Your task to perform on an android device: refresh tabs in the chrome app Image 0: 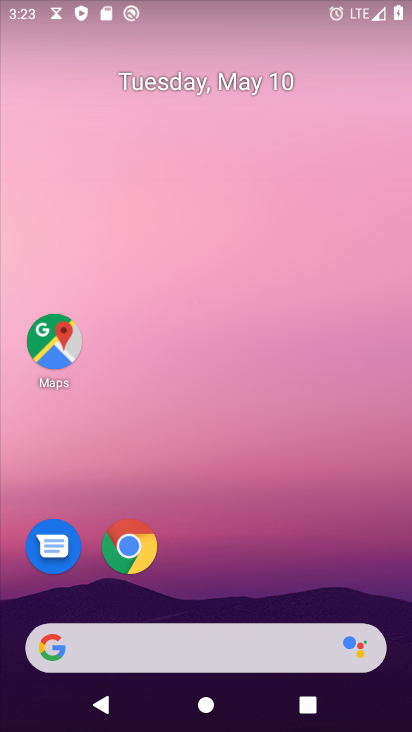
Step 0: click (142, 552)
Your task to perform on an android device: refresh tabs in the chrome app Image 1: 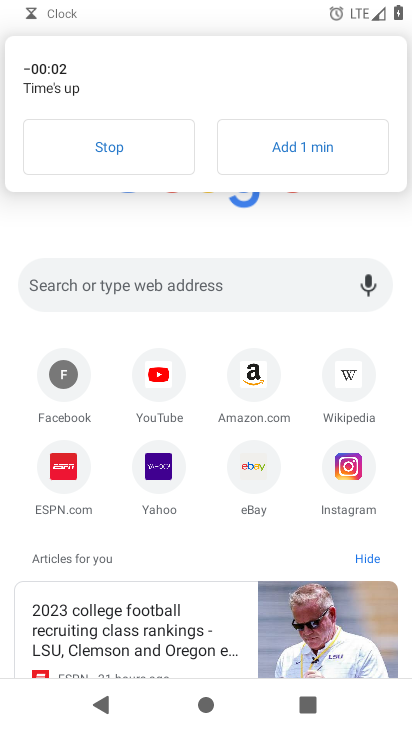
Step 1: click (153, 160)
Your task to perform on an android device: refresh tabs in the chrome app Image 2: 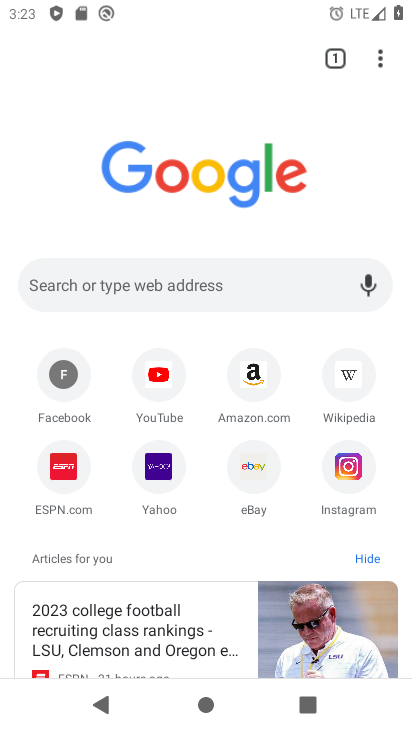
Step 2: click (395, 68)
Your task to perform on an android device: refresh tabs in the chrome app Image 3: 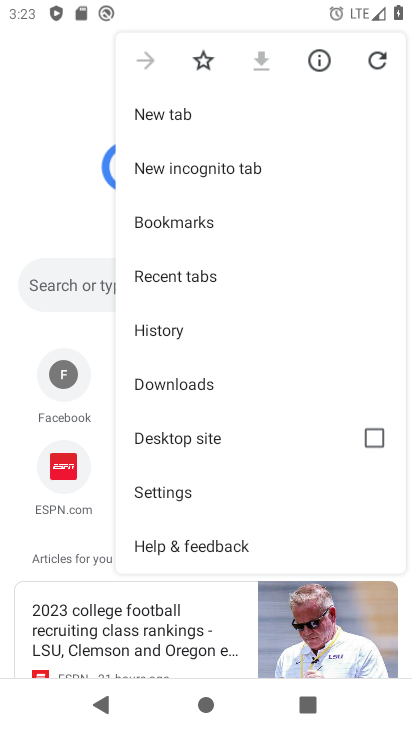
Step 3: click (384, 60)
Your task to perform on an android device: refresh tabs in the chrome app Image 4: 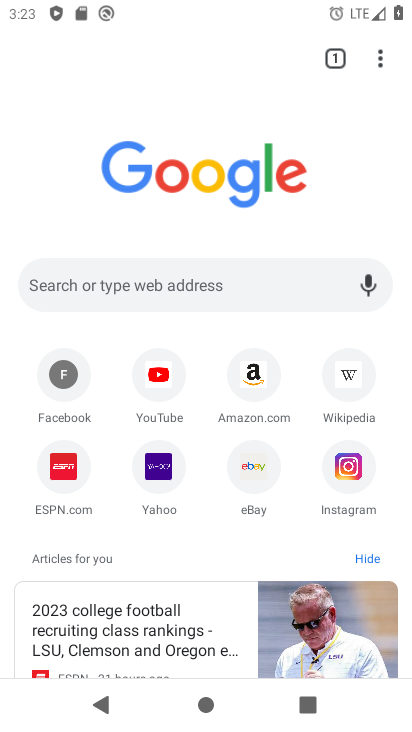
Step 4: task complete